Your task to perform on an android device: Do I have any events tomorrow? Image 0: 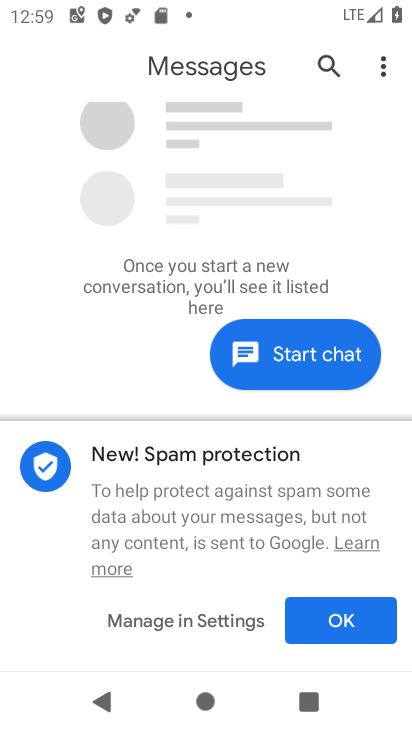
Step 0: press home button
Your task to perform on an android device: Do I have any events tomorrow? Image 1: 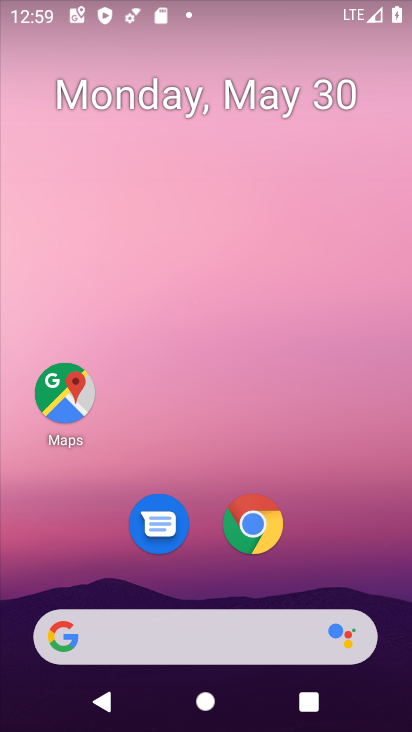
Step 1: drag from (323, 491) to (324, 64)
Your task to perform on an android device: Do I have any events tomorrow? Image 2: 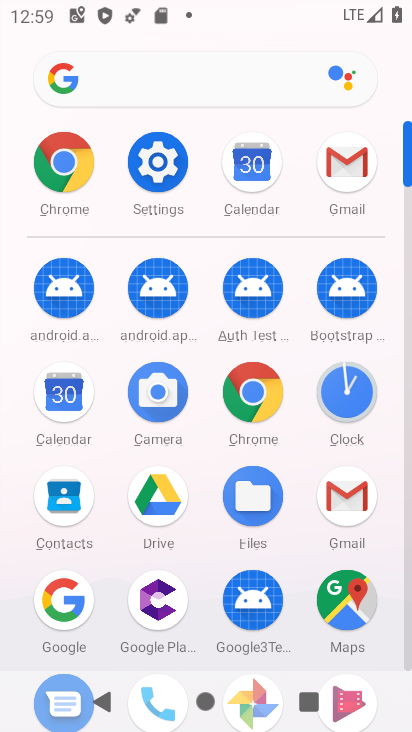
Step 2: click (249, 158)
Your task to perform on an android device: Do I have any events tomorrow? Image 3: 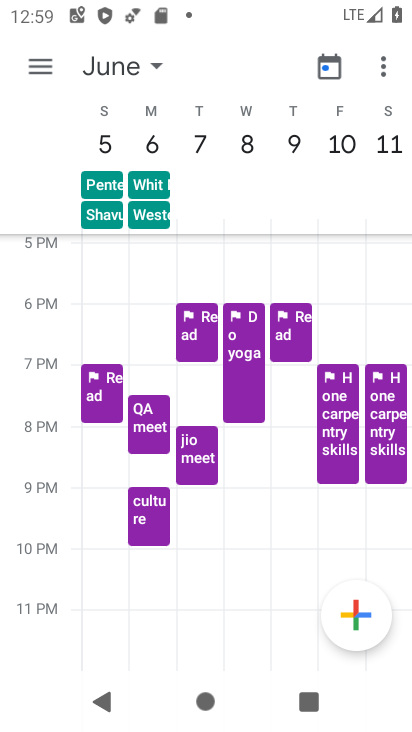
Step 3: drag from (110, 264) to (399, 302)
Your task to perform on an android device: Do I have any events tomorrow? Image 4: 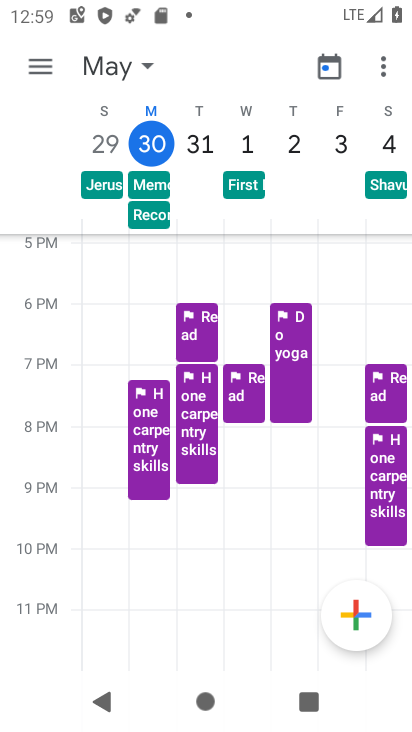
Step 4: click (146, 149)
Your task to perform on an android device: Do I have any events tomorrow? Image 5: 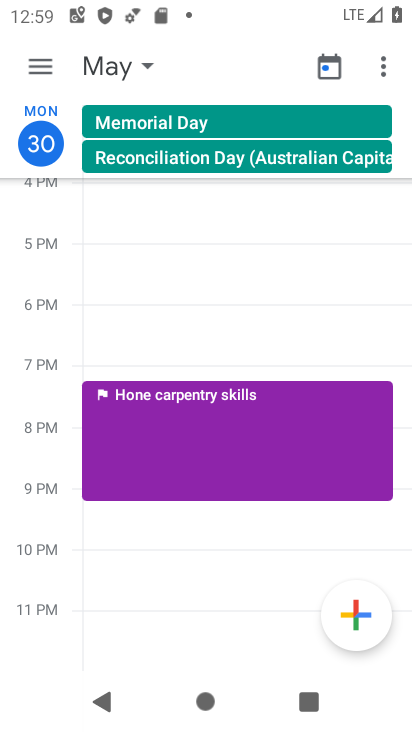
Step 5: click (44, 138)
Your task to perform on an android device: Do I have any events tomorrow? Image 6: 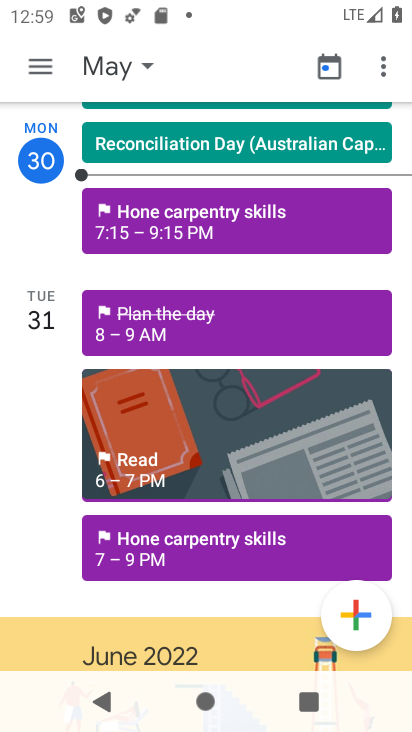
Step 6: task complete